Your task to perform on an android device: Open sound settings Image 0: 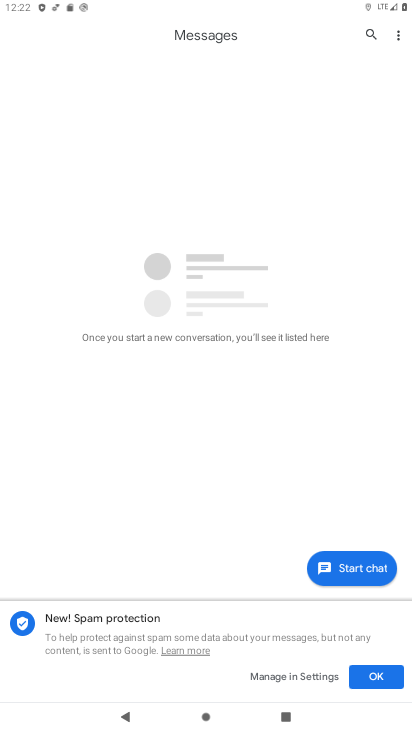
Step 0: press home button
Your task to perform on an android device: Open sound settings Image 1: 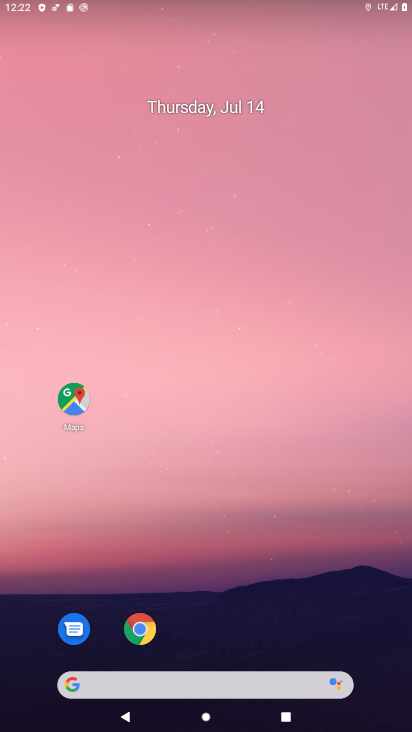
Step 1: drag from (278, 525) to (152, 11)
Your task to perform on an android device: Open sound settings Image 2: 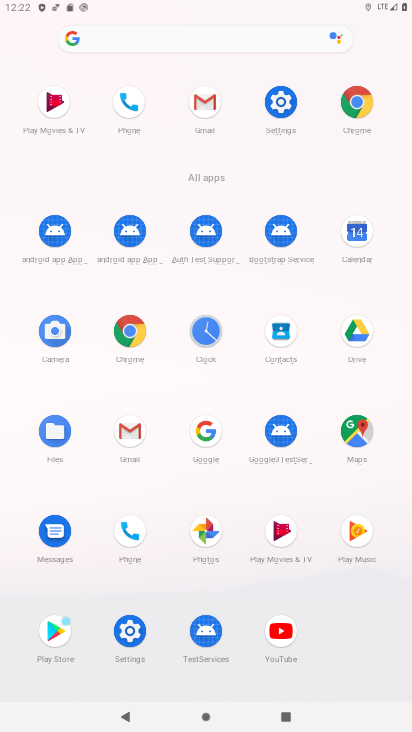
Step 2: click (277, 111)
Your task to perform on an android device: Open sound settings Image 3: 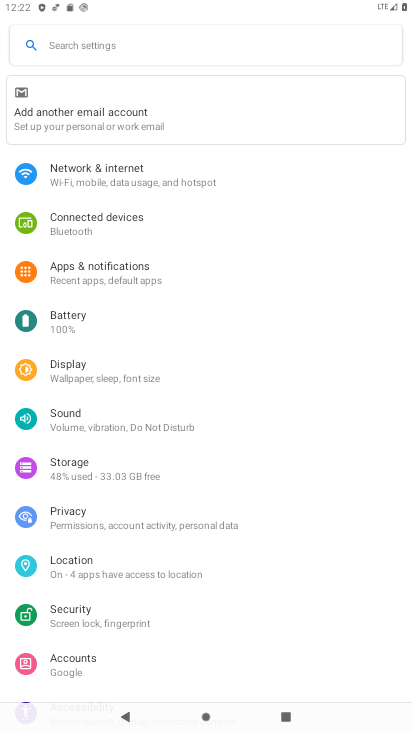
Step 3: click (77, 422)
Your task to perform on an android device: Open sound settings Image 4: 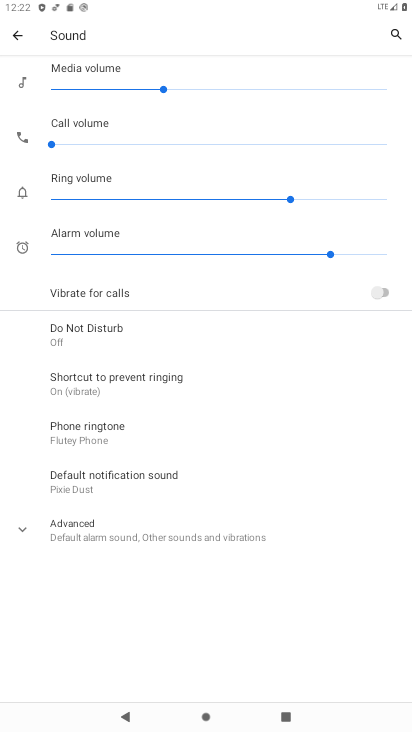
Step 4: task complete